Your task to perform on an android device: Open Google Image 0: 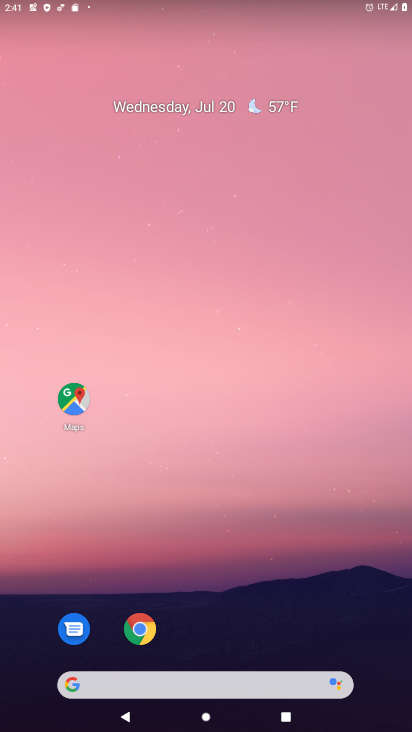
Step 0: click (371, 663)
Your task to perform on an android device: Open Google Image 1: 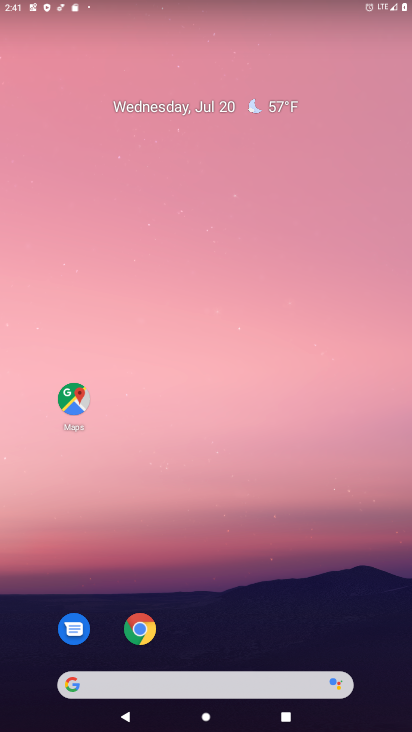
Step 1: click (139, 632)
Your task to perform on an android device: Open Google Image 2: 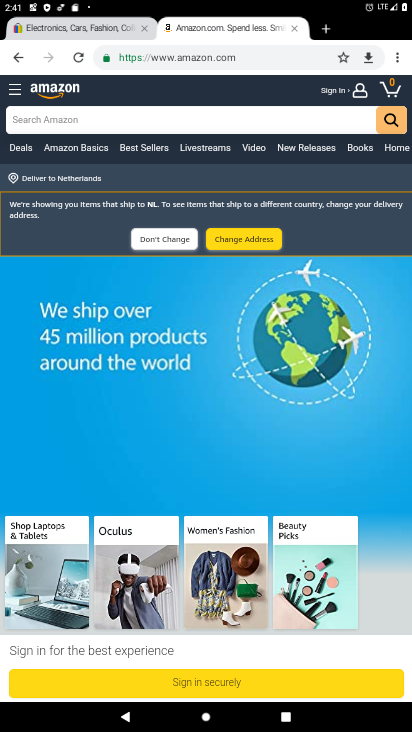
Step 2: task complete